Your task to perform on an android device: Show me productivity apps on the Play Store Image 0: 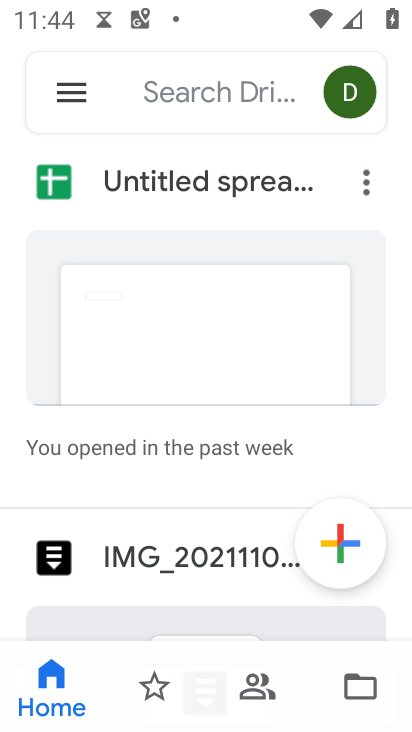
Step 0: press home button
Your task to perform on an android device: Show me productivity apps on the Play Store Image 1: 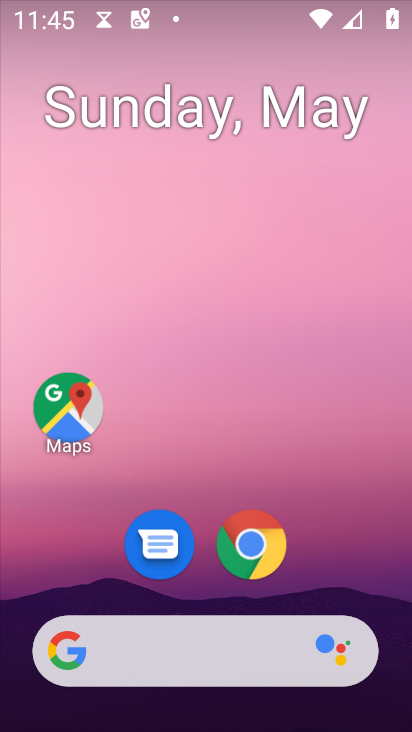
Step 1: drag from (318, 579) to (336, 277)
Your task to perform on an android device: Show me productivity apps on the Play Store Image 2: 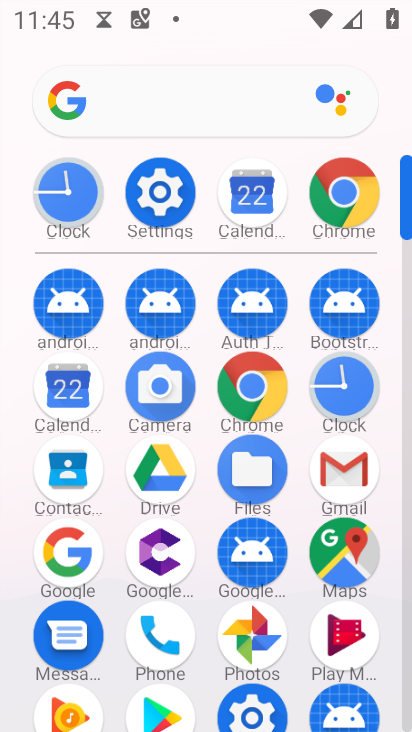
Step 2: drag from (197, 608) to (237, 415)
Your task to perform on an android device: Show me productivity apps on the Play Store Image 3: 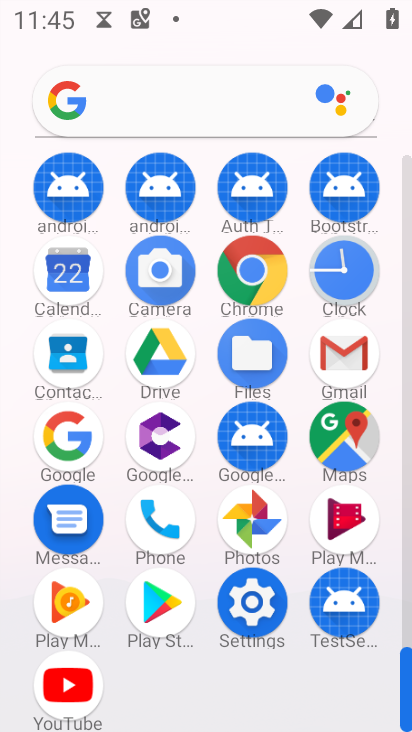
Step 3: click (167, 584)
Your task to perform on an android device: Show me productivity apps on the Play Store Image 4: 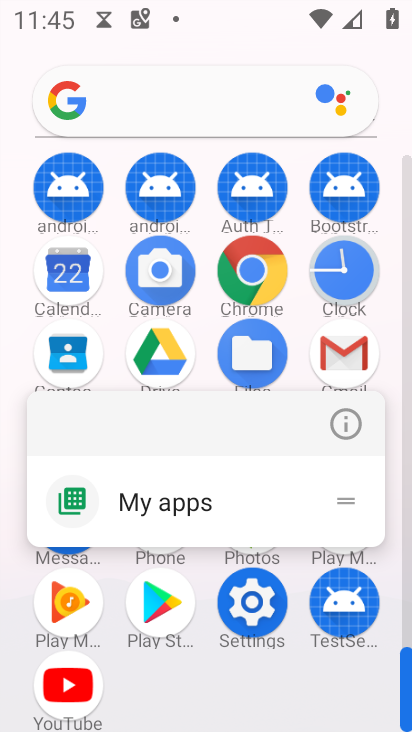
Step 4: click (161, 601)
Your task to perform on an android device: Show me productivity apps on the Play Store Image 5: 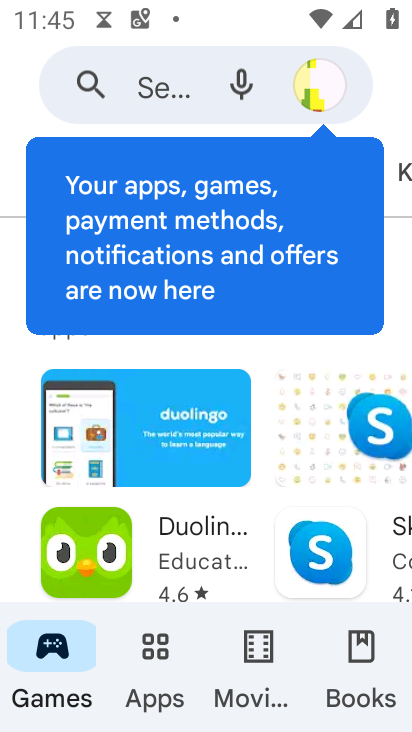
Step 5: click (168, 641)
Your task to perform on an android device: Show me productivity apps on the Play Store Image 6: 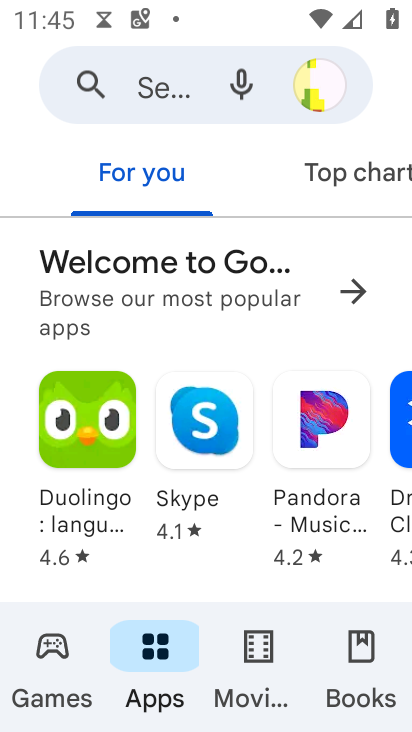
Step 6: task complete